Your task to perform on an android device: Open location settings Image 0: 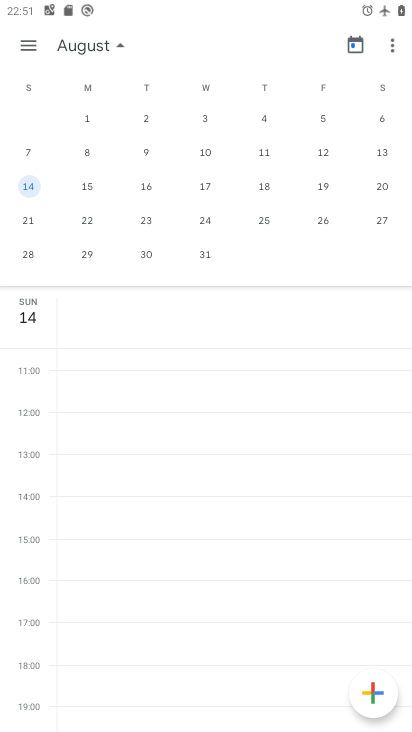
Step 0: press home button
Your task to perform on an android device: Open location settings Image 1: 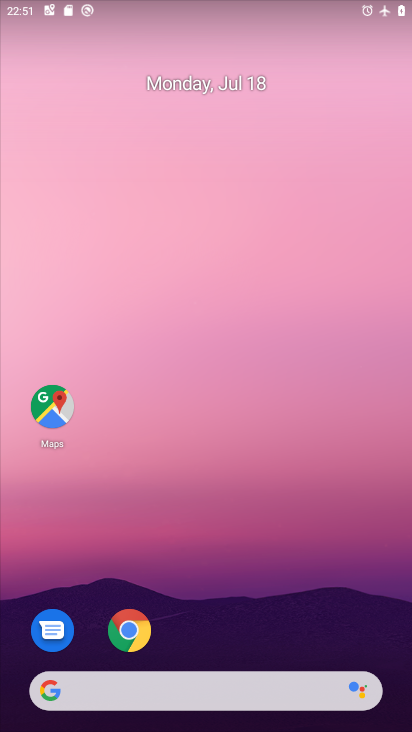
Step 1: drag from (203, 625) to (227, 181)
Your task to perform on an android device: Open location settings Image 2: 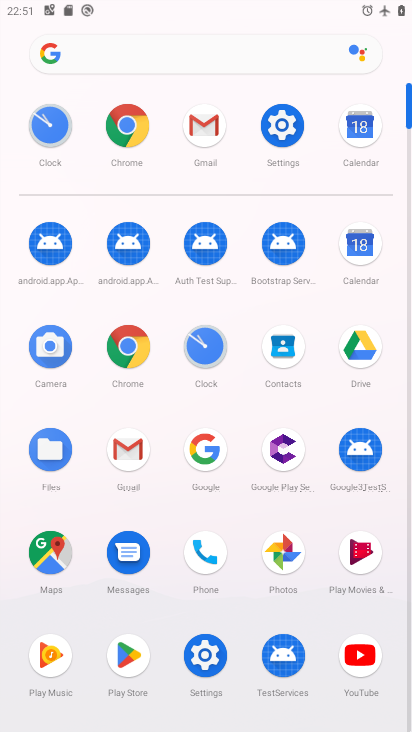
Step 2: click (288, 142)
Your task to perform on an android device: Open location settings Image 3: 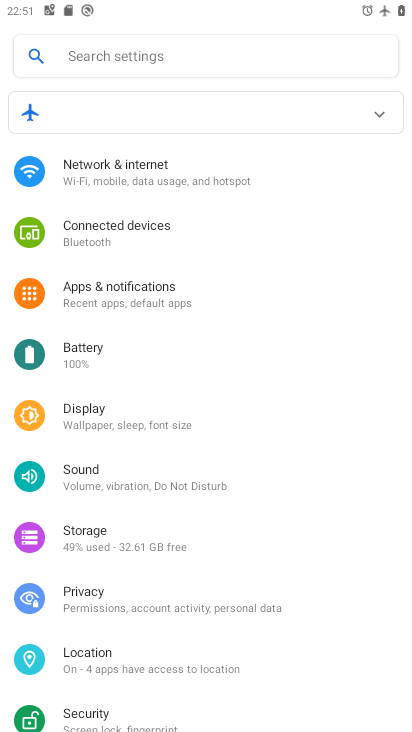
Step 3: click (146, 653)
Your task to perform on an android device: Open location settings Image 4: 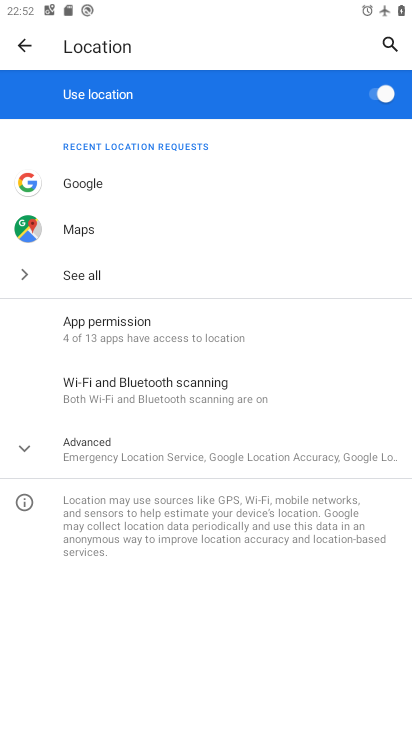
Step 4: task complete